Your task to perform on an android device: open a bookmark in the chrome app Image 0: 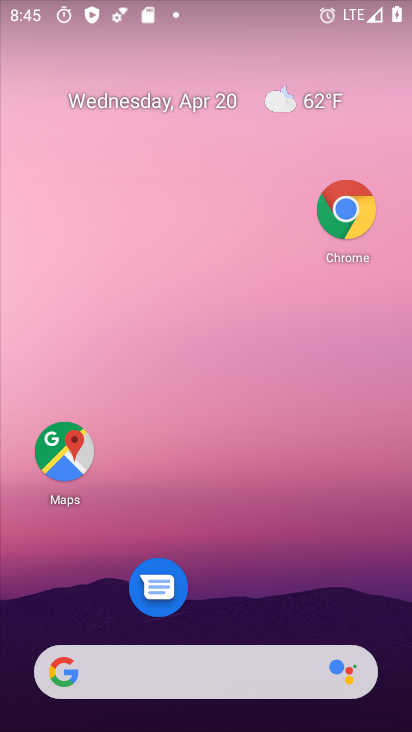
Step 0: click (353, 208)
Your task to perform on an android device: open a bookmark in the chrome app Image 1: 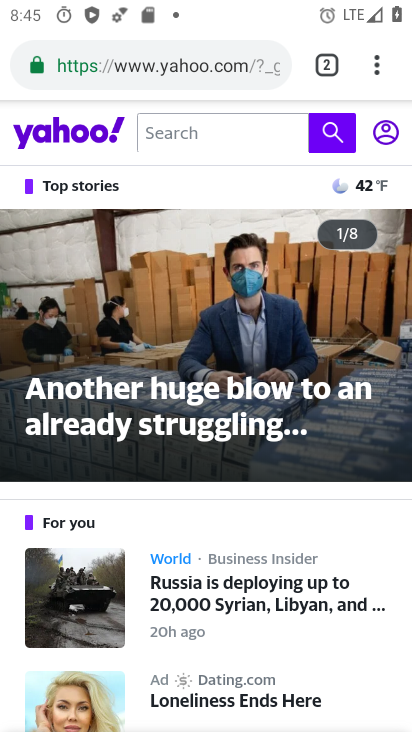
Step 1: click (376, 75)
Your task to perform on an android device: open a bookmark in the chrome app Image 2: 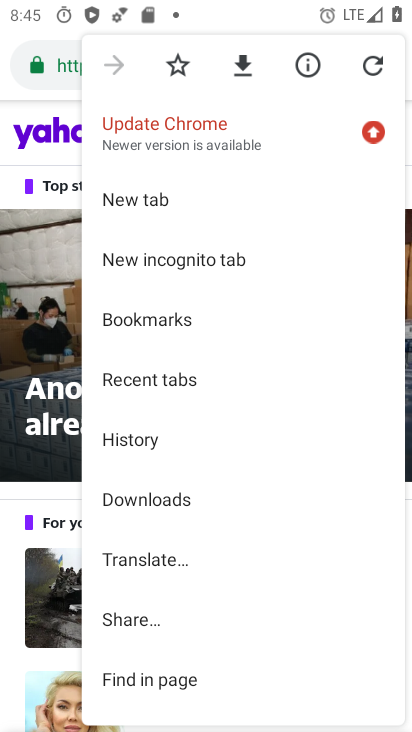
Step 2: click (229, 323)
Your task to perform on an android device: open a bookmark in the chrome app Image 3: 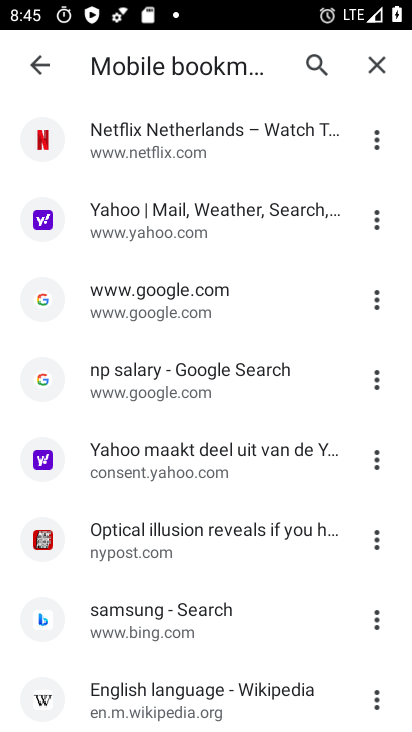
Step 3: click (214, 541)
Your task to perform on an android device: open a bookmark in the chrome app Image 4: 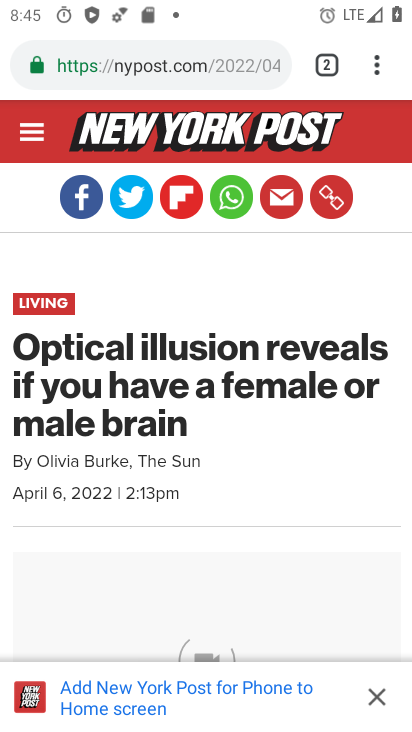
Step 4: task complete